Your task to perform on an android device: Open eBay Image 0: 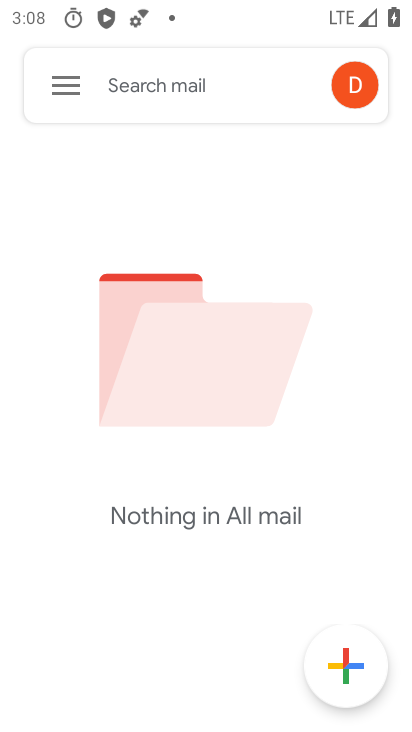
Step 0: press home button
Your task to perform on an android device: Open eBay Image 1: 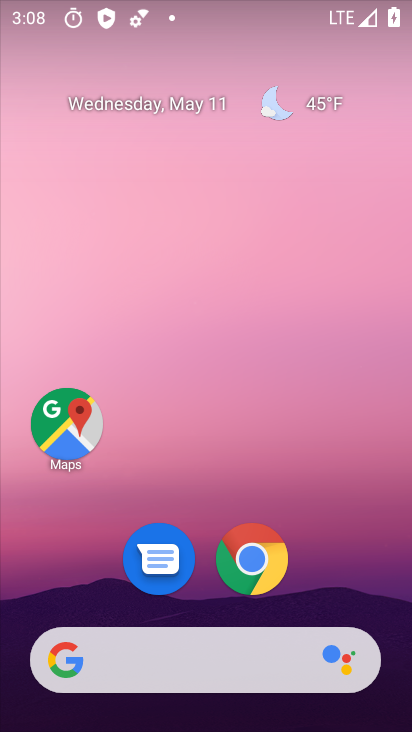
Step 1: click (259, 563)
Your task to perform on an android device: Open eBay Image 2: 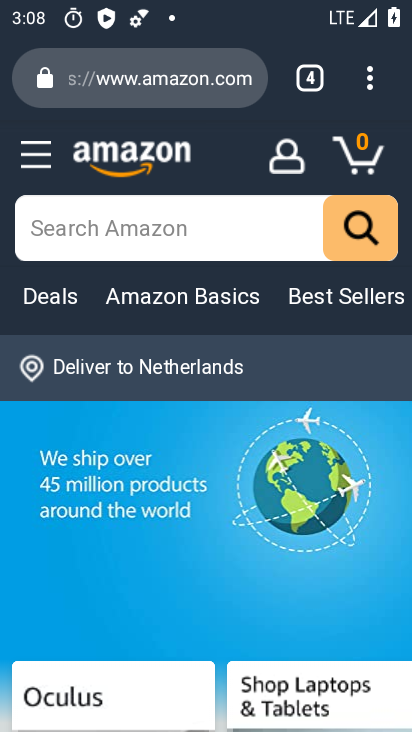
Step 2: click (309, 88)
Your task to perform on an android device: Open eBay Image 3: 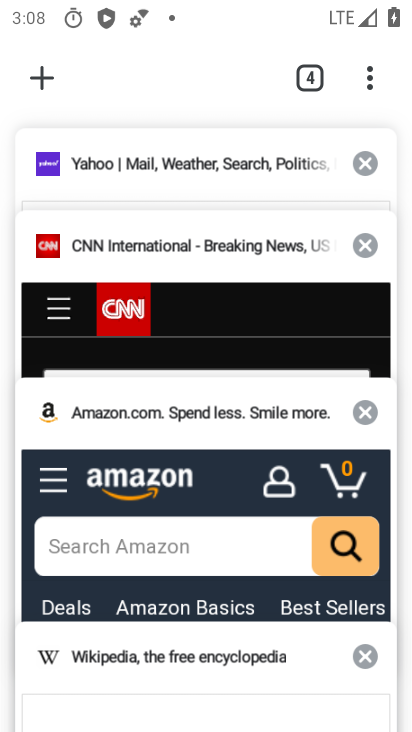
Step 3: click (39, 82)
Your task to perform on an android device: Open eBay Image 4: 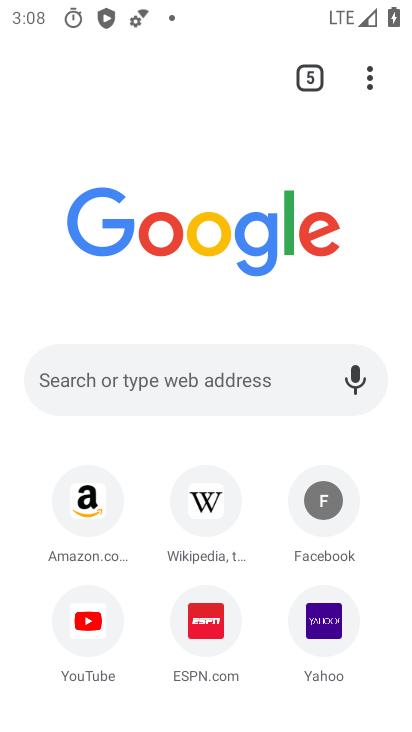
Step 4: click (194, 363)
Your task to perform on an android device: Open eBay Image 5: 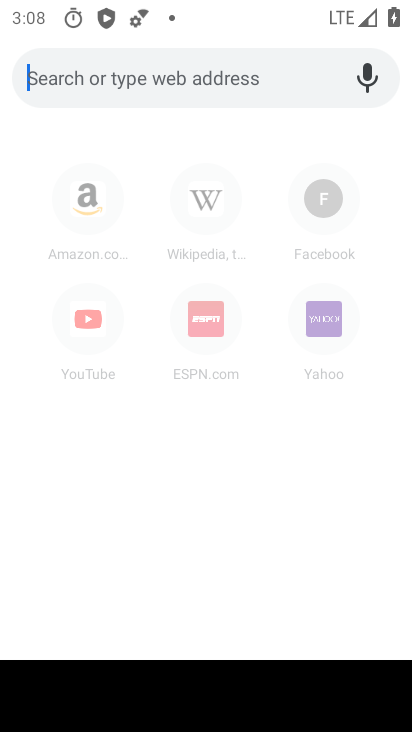
Step 5: type "eBay"
Your task to perform on an android device: Open eBay Image 6: 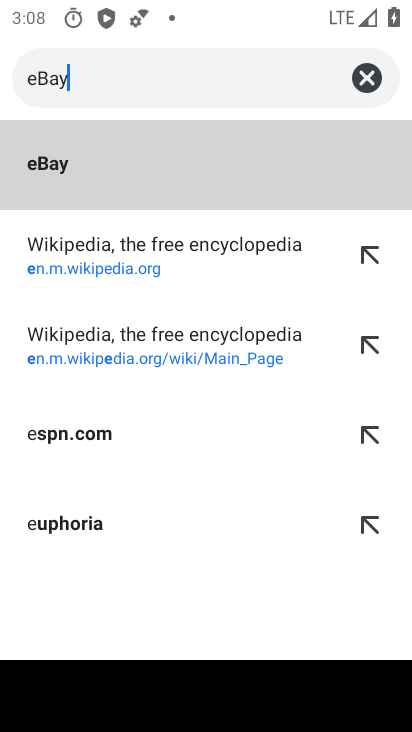
Step 6: type ""
Your task to perform on an android device: Open eBay Image 7: 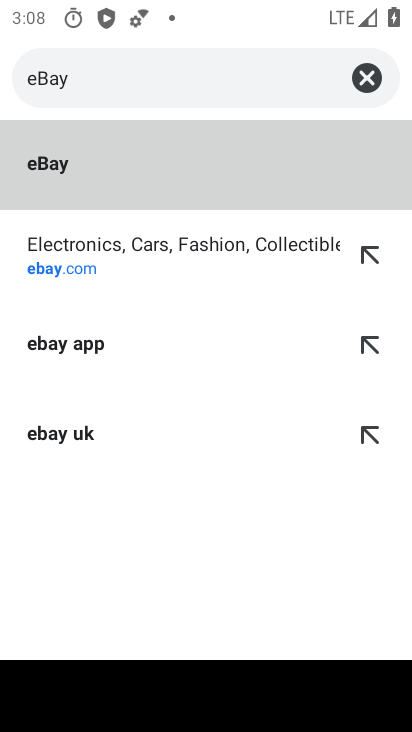
Step 7: click (126, 176)
Your task to perform on an android device: Open eBay Image 8: 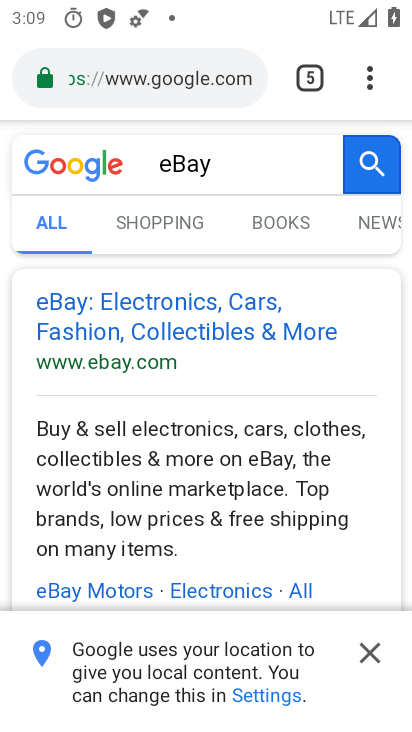
Step 8: task complete